Your task to perform on an android device: manage bookmarks in the chrome app Image 0: 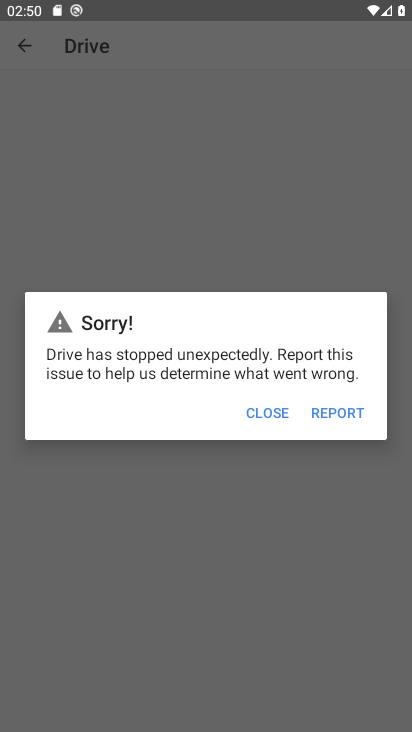
Step 0: press home button
Your task to perform on an android device: manage bookmarks in the chrome app Image 1: 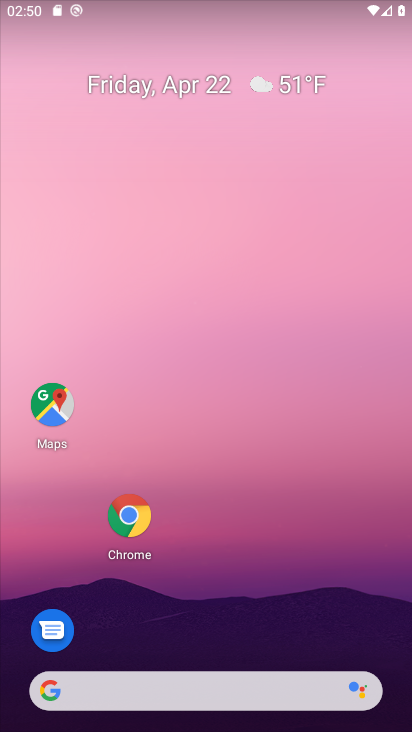
Step 1: click (121, 511)
Your task to perform on an android device: manage bookmarks in the chrome app Image 2: 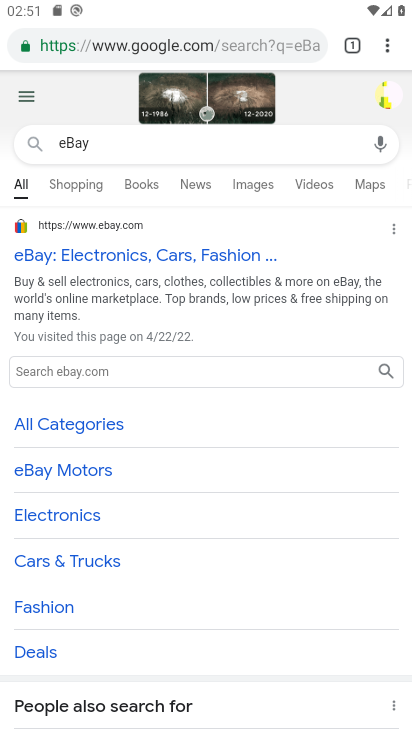
Step 2: click (384, 37)
Your task to perform on an android device: manage bookmarks in the chrome app Image 3: 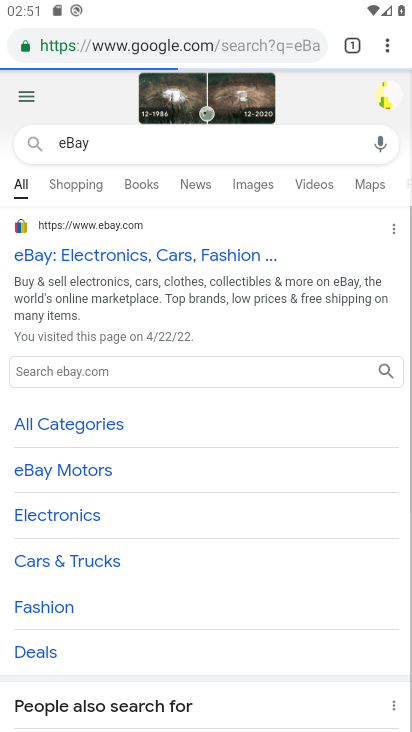
Step 3: click (384, 38)
Your task to perform on an android device: manage bookmarks in the chrome app Image 4: 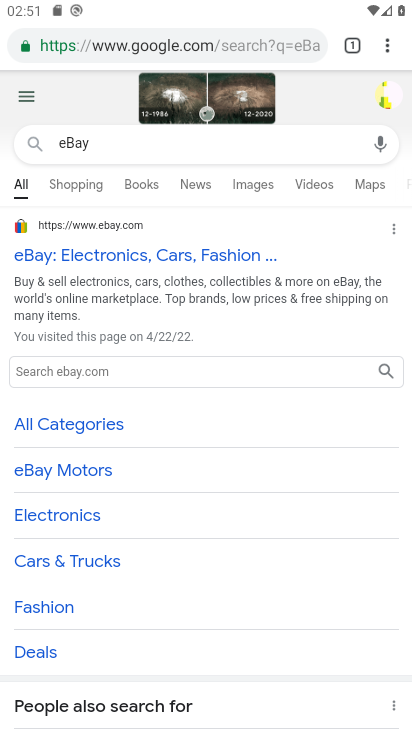
Step 4: click (384, 38)
Your task to perform on an android device: manage bookmarks in the chrome app Image 5: 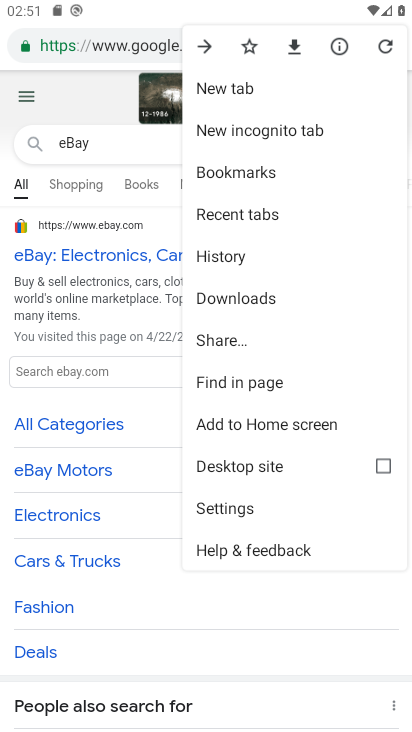
Step 5: click (211, 175)
Your task to perform on an android device: manage bookmarks in the chrome app Image 6: 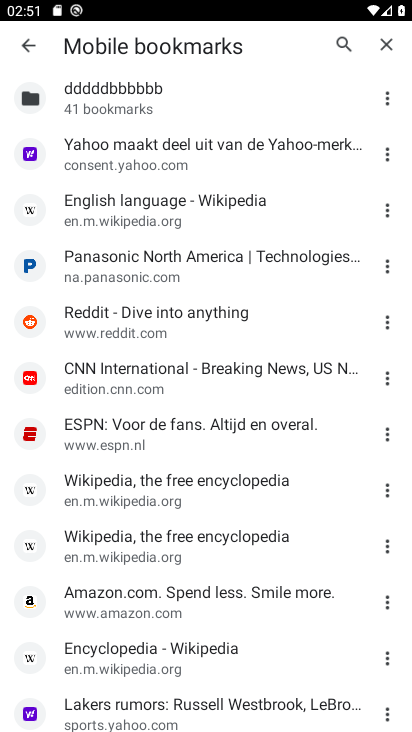
Step 6: click (386, 710)
Your task to perform on an android device: manage bookmarks in the chrome app Image 7: 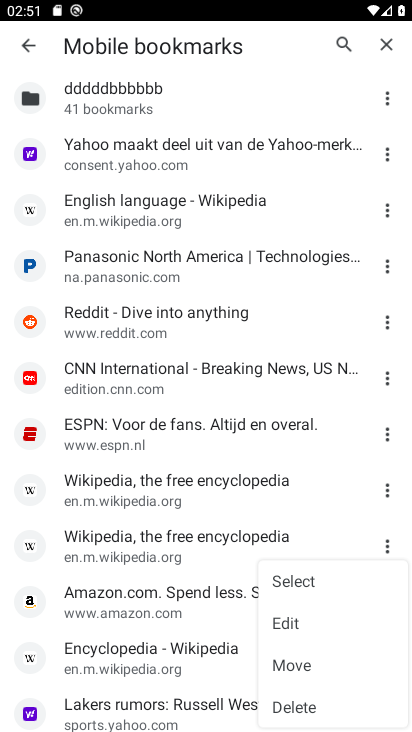
Step 7: click (299, 661)
Your task to perform on an android device: manage bookmarks in the chrome app Image 8: 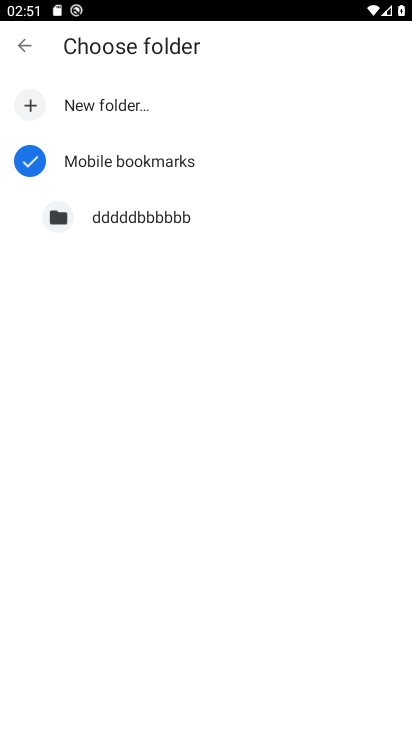
Step 8: click (118, 216)
Your task to perform on an android device: manage bookmarks in the chrome app Image 9: 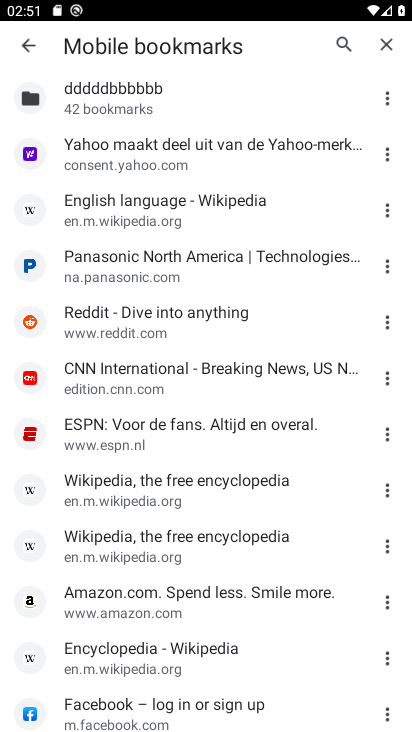
Step 9: task complete